Your task to perform on an android device: Open the phone app and click the voicemail tab. Image 0: 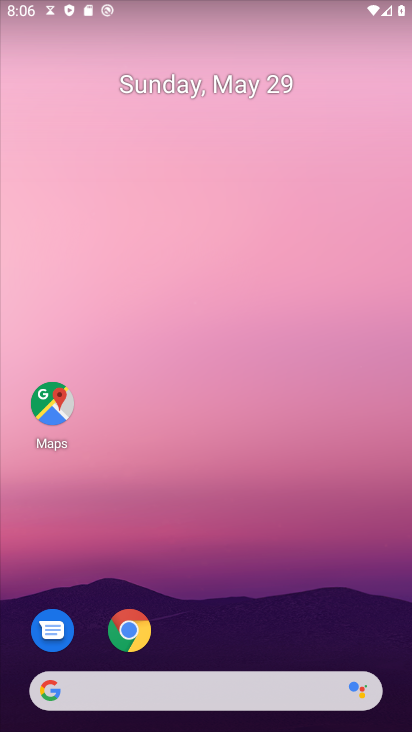
Step 0: drag from (271, 643) to (331, 236)
Your task to perform on an android device: Open the phone app and click the voicemail tab. Image 1: 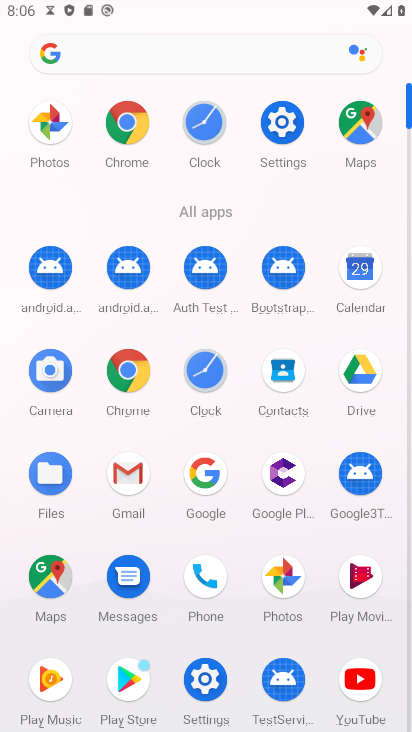
Step 1: click (210, 587)
Your task to perform on an android device: Open the phone app and click the voicemail tab. Image 2: 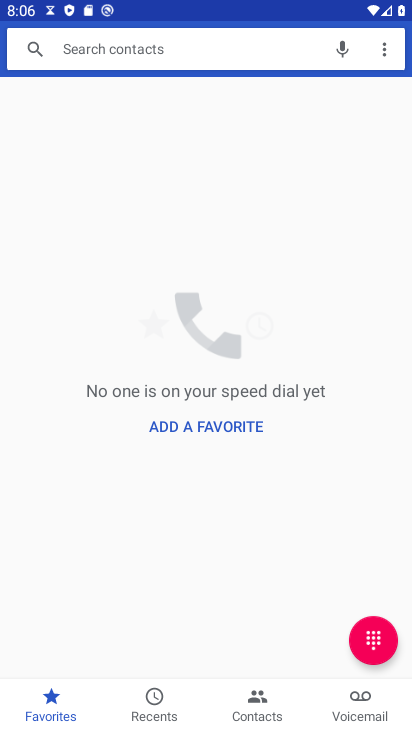
Step 2: click (353, 685)
Your task to perform on an android device: Open the phone app and click the voicemail tab. Image 3: 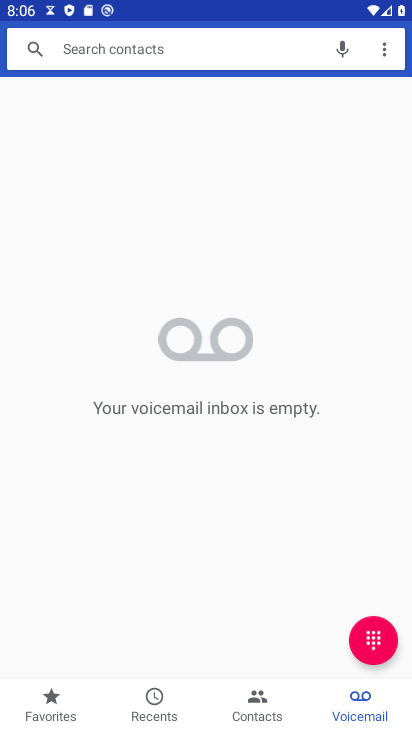
Step 3: task complete